Your task to perform on an android device: remove spam from my inbox in the gmail app Image 0: 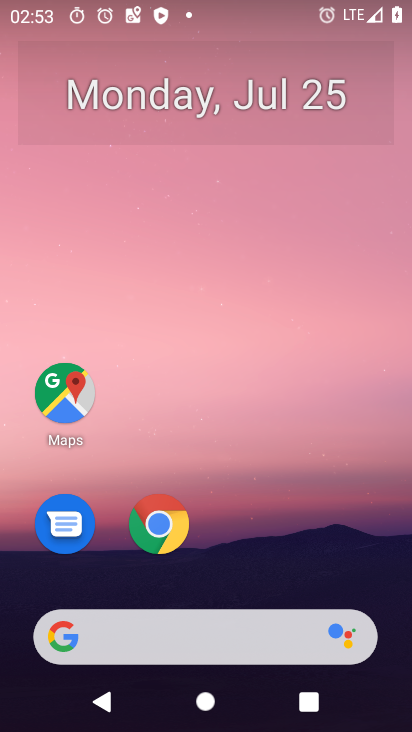
Step 0: drag from (252, 583) to (217, 50)
Your task to perform on an android device: remove spam from my inbox in the gmail app Image 1: 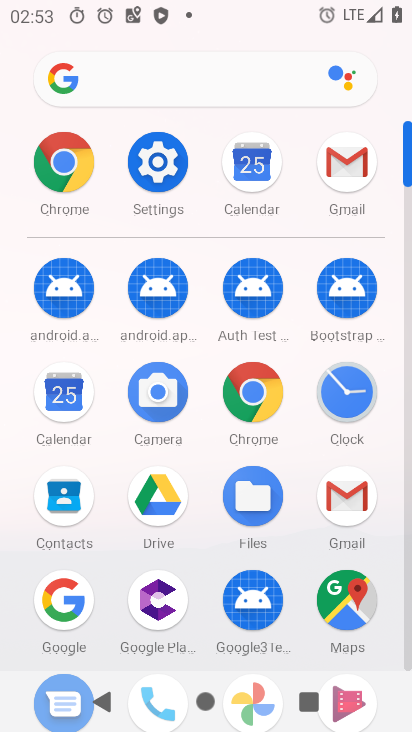
Step 1: click (346, 157)
Your task to perform on an android device: remove spam from my inbox in the gmail app Image 2: 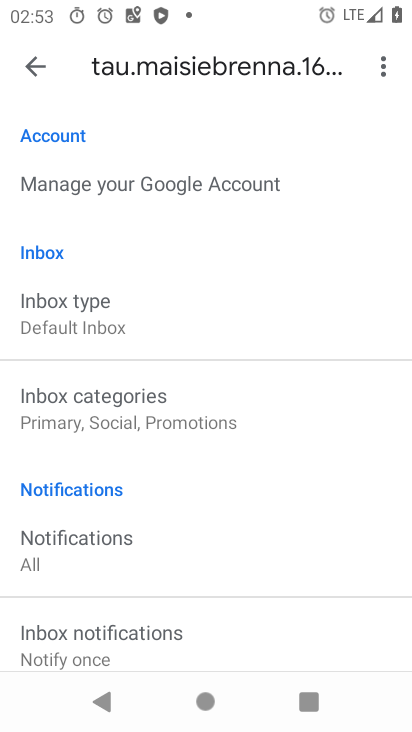
Step 2: click (32, 63)
Your task to perform on an android device: remove spam from my inbox in the gmail app Image 3: 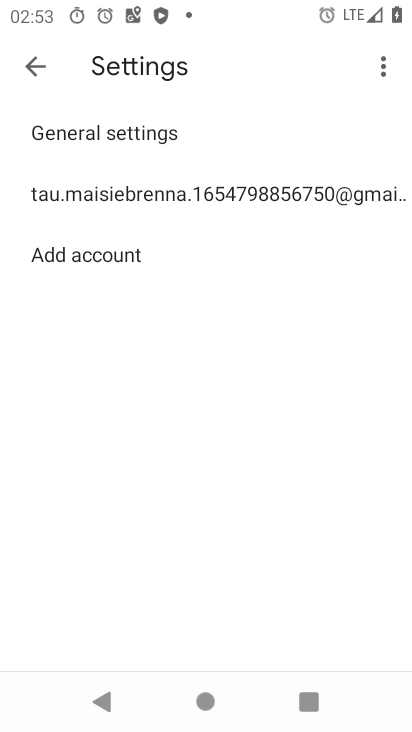
Step 3: click (32, 63)
Your task to perform on an android device: remove spam from my inbox in the gmail app Image 4: 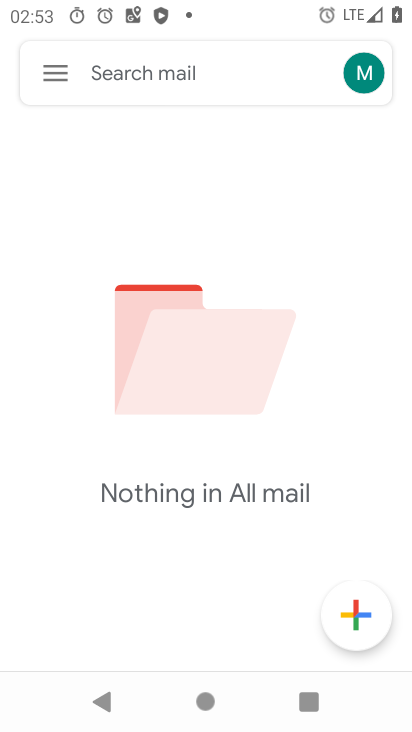
Step 4: click (32, 63)
Your task to perform on an android device: remove spam from my inbox in the gmail app Image 5: 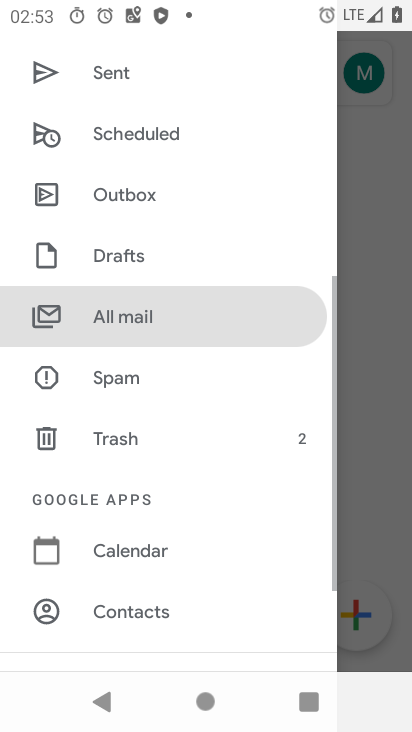
Step 5: click (116, 379)
Your task to perform on an android device: remove spam from my inbox in the gmail app Image 6: 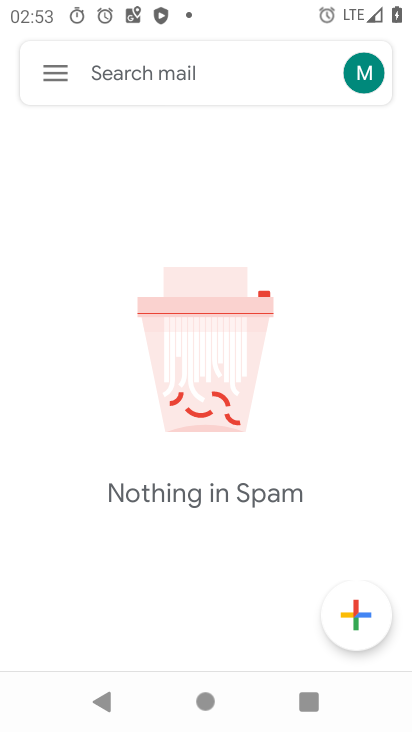
Step 6: task complete